Your task to perform on an android device: Open display settings Image 0: 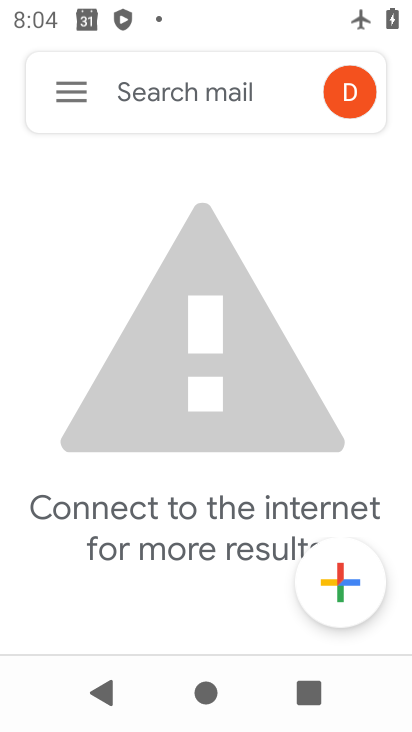
Step 0: drag from (199, 228) to (189, 191)
Your task to perform on an android device: Open display settings Image 1: 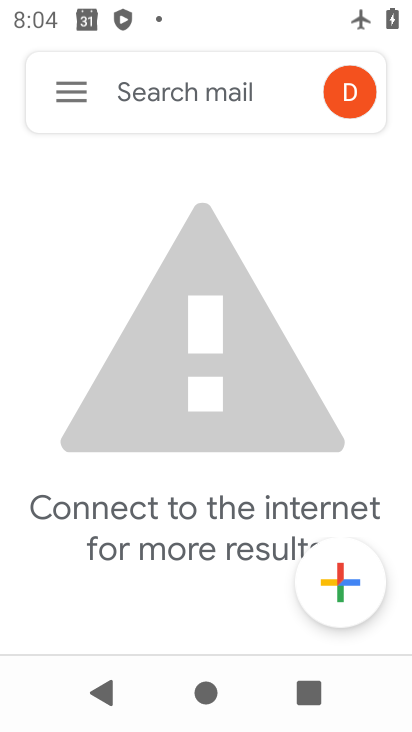
Step 1: click (54, 114)
Your task to perform on an android device: Open display settings Image 2: 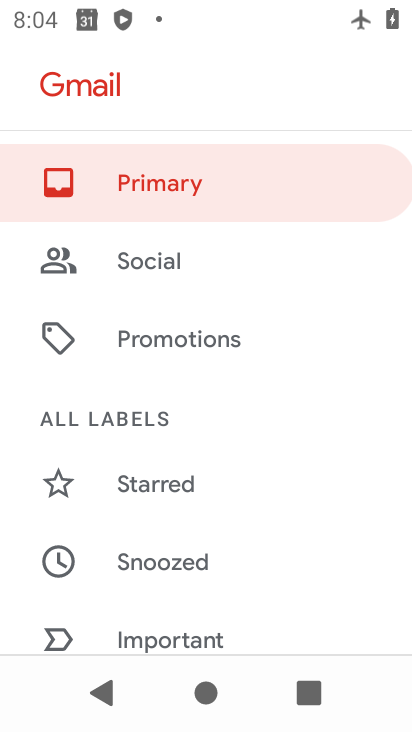
Step 2: press home button
Your task to perform on an android device: Open display settings Image 3: 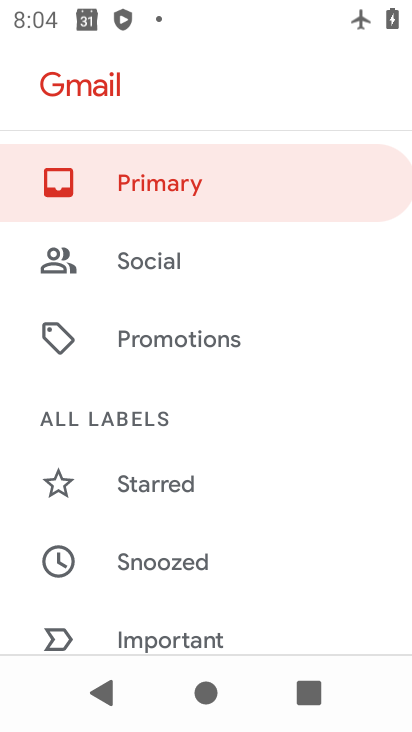
Step 3: press home button
Your task to perform on an android device: Open display settings Image 4: 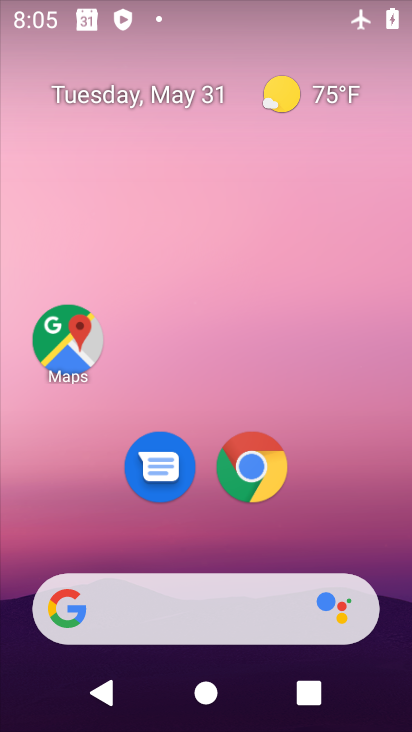
Step 4: drag from (182, 513) to (232, 194)
Your task to perform on an android device: Open display settings Image 5: 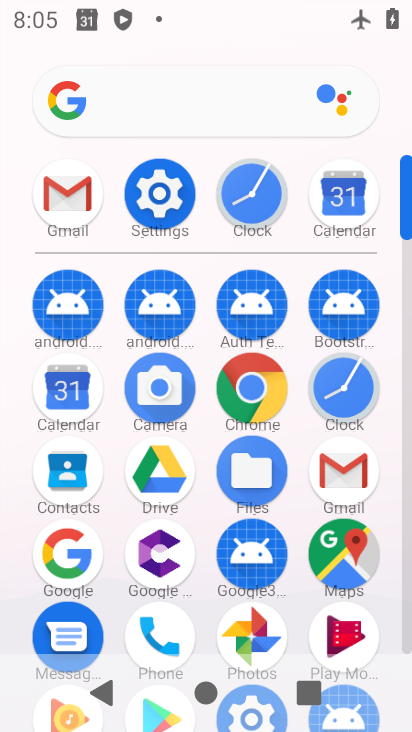
Step 5: drag from (251, 43) to (379, 208)
Your task to perform on an android device: Open display settings Image 6: 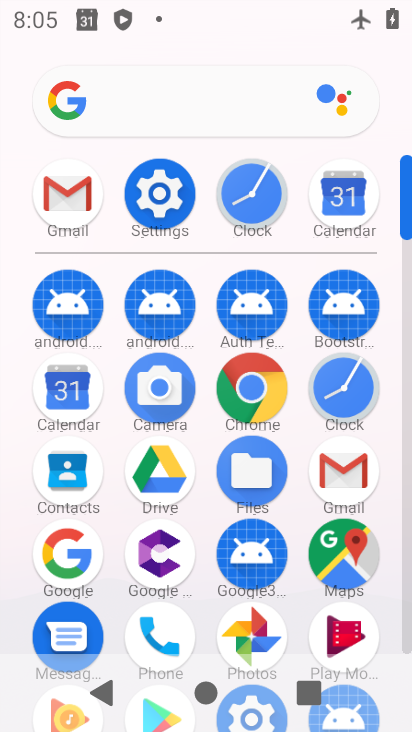
Step 6: click (158, 181)
Your task to perform on an android device: Open display settings Image 7: 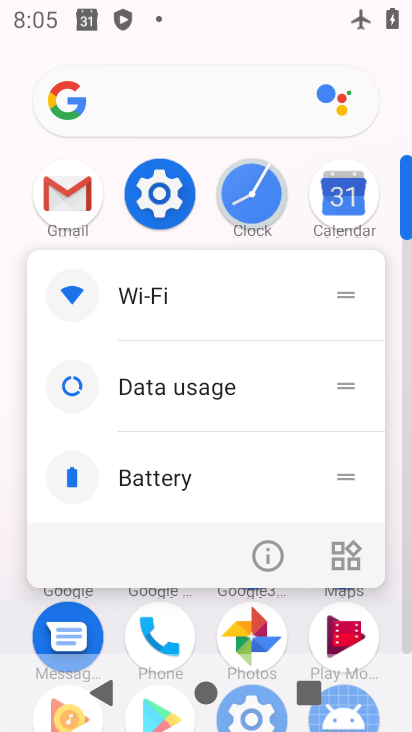
Step 7: click (269, 551)
Your task to perform on an android device: Open display settings Image 8: 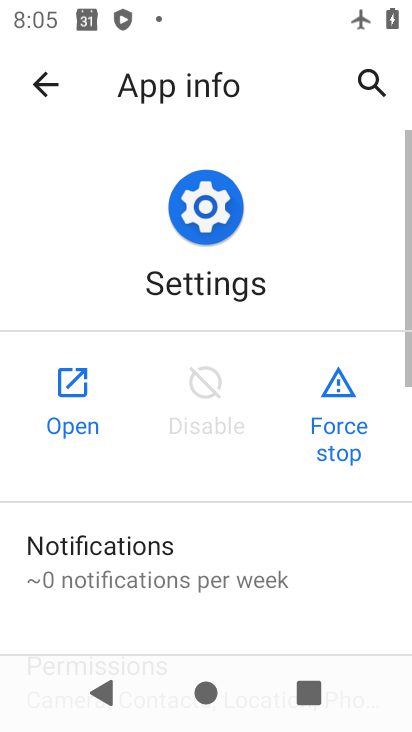
Step 8: click (55, 375)
Your task to perform on an android device: Open display settings Image 9: 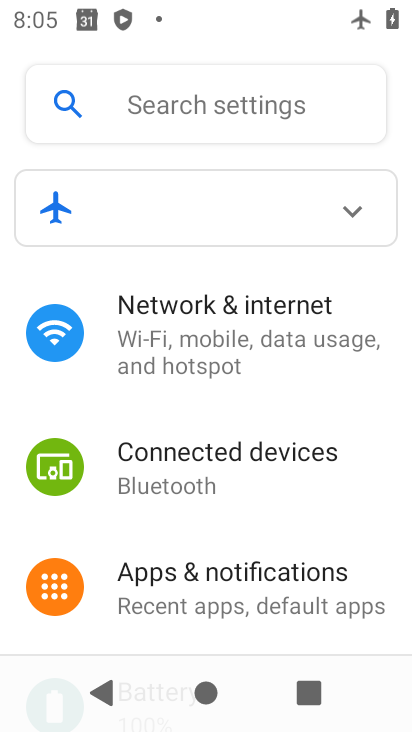
Step 9: drag from (202, 569) to (259, 133)
Your task to perform on an android device: Open display settings Image 10: 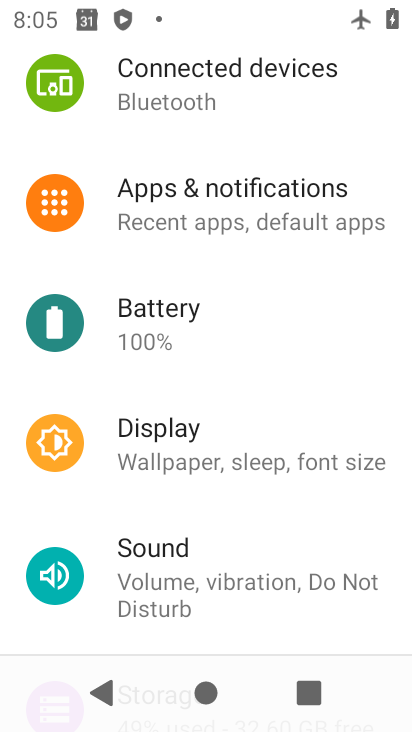
Step 10: click (186, 468)
Your task to perform on an android device: Open display settings Image 11: 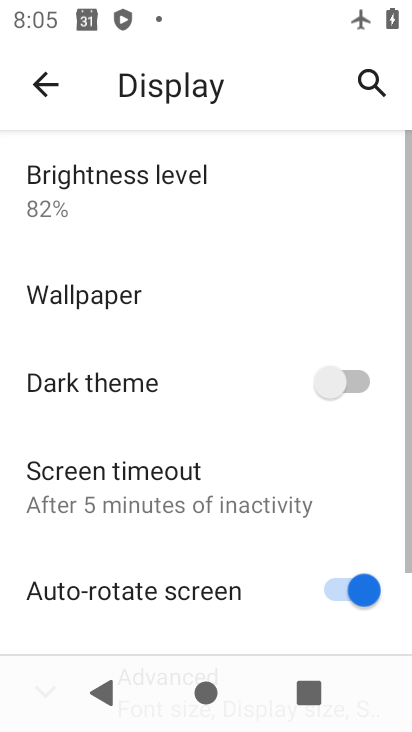
Step 11: task complete